Your task to perform on an android device: Is it going to rain this weekend? Image 0: 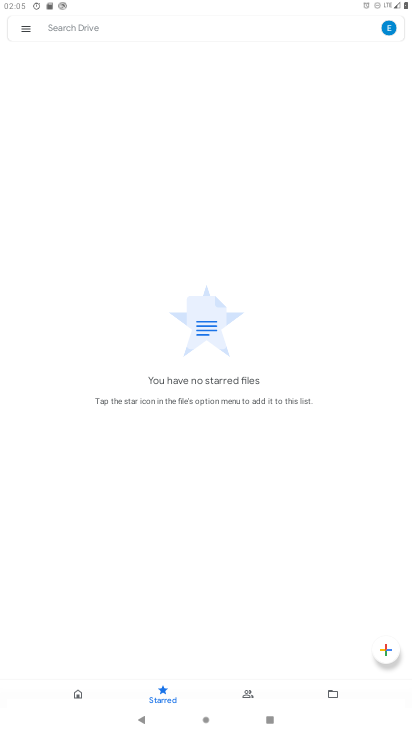
Step 0: press home button
Your task to perform on an android device: Is it going to rain this weekend? Image 1: 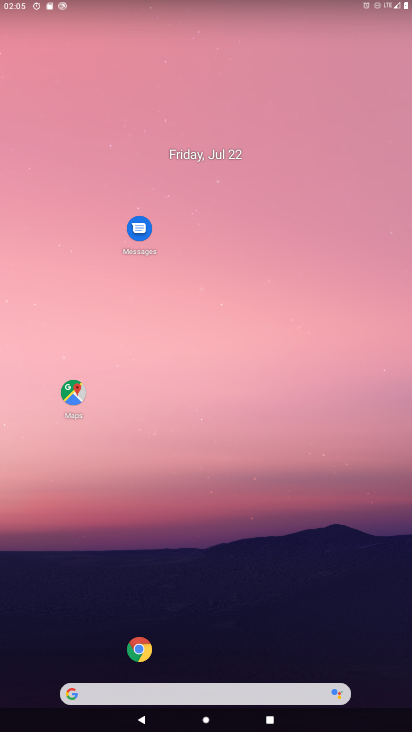
Step 1: click (130, 690)
Your task to perform on an android device: Is it going to rain this weekend? Image 2: 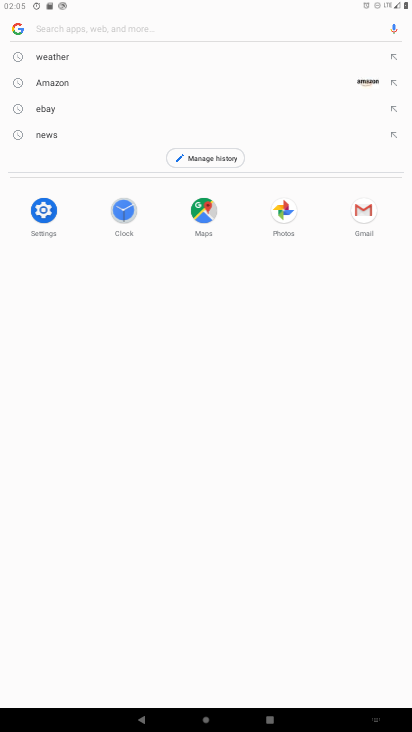
Step 2: type "Is it going to rain this weekend?"
Your task to perform on an android device: Is it going to rain this weekend? Image 3: 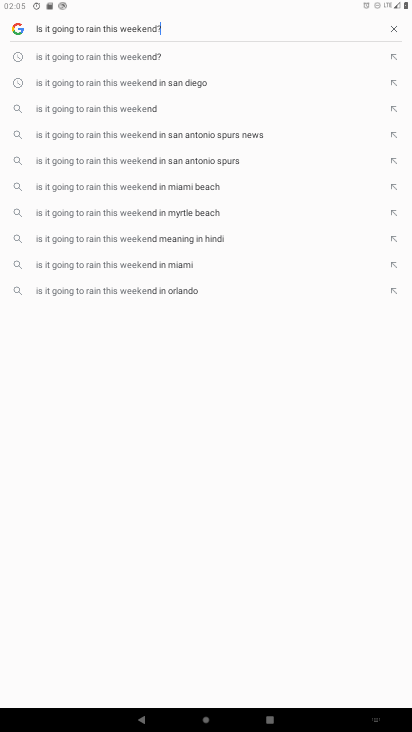
Step 3: type ""
Your task to perform on an android device: Is it going to rain this weekend? Image 4: 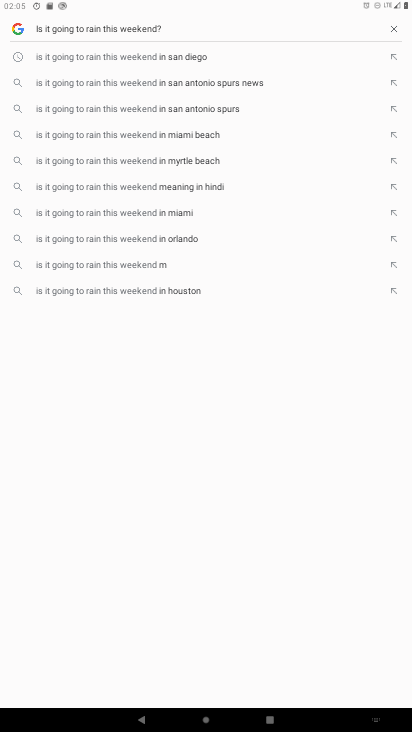
Step 4: type ""
Your task to perform on an android device: Is it going to rain this weekend? Image 5: 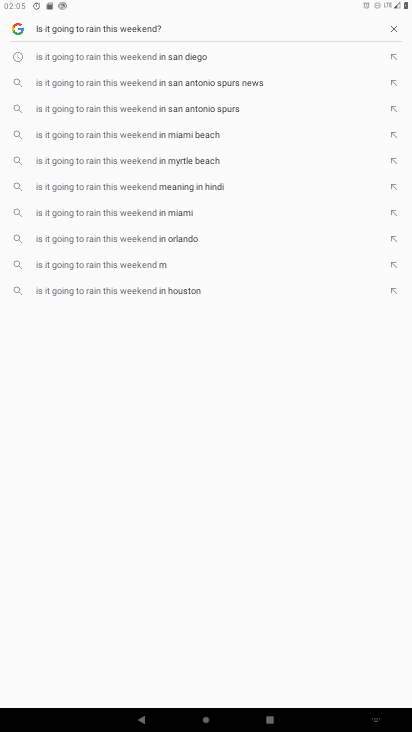
Step 5: type ""
Your task to perform on an android device: Is it going to rain this weekend? Image 6: 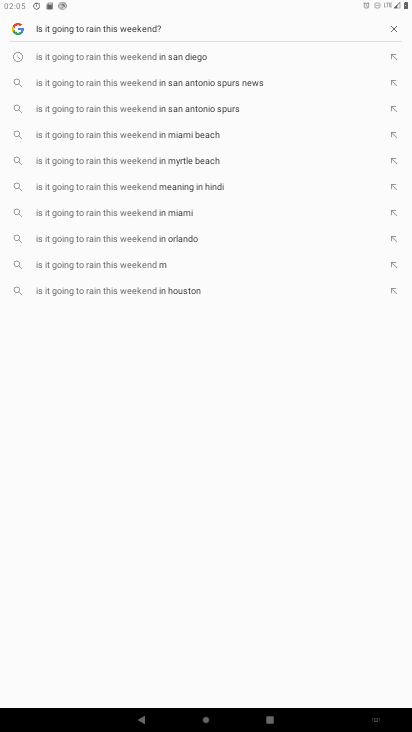
Step 6: type ""
Your task to perform on an android device: Is it going to rain this weekend? Image 7: 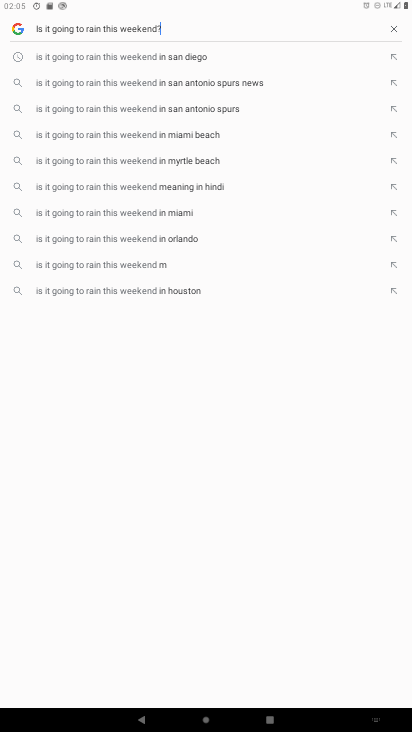
Step 7: type ""
Your task to perform on an android device: Is it going to rain this weekend? Image 8: 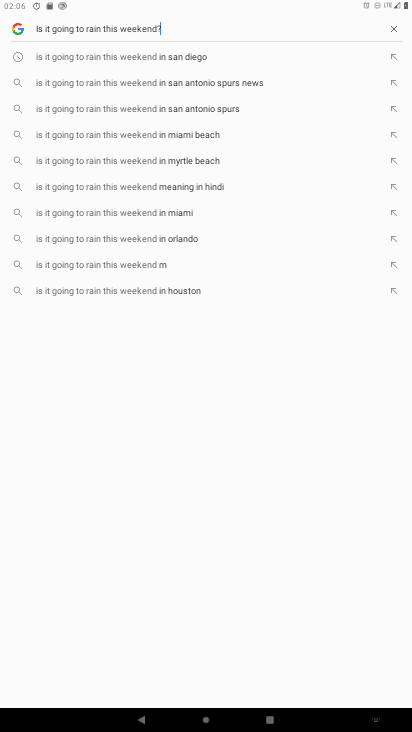
Step 8: task complete